Your task to perform on an android device: Open the phone app and click the voicemail tab. Image 0: 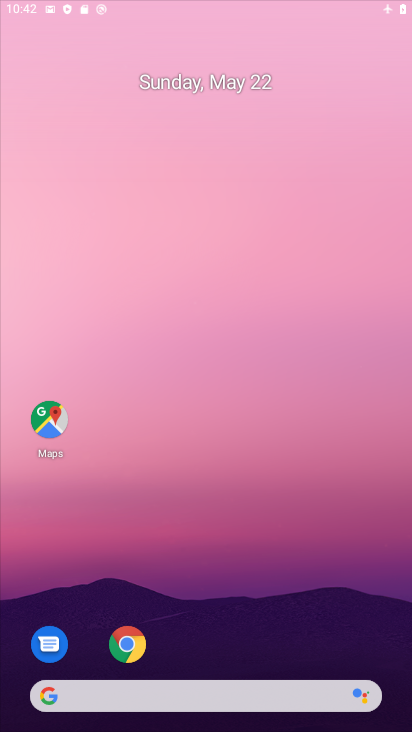
Step 0: press home button
Your task to perform on an android device: Open the phone app and click the voicemail tab. Image 1: 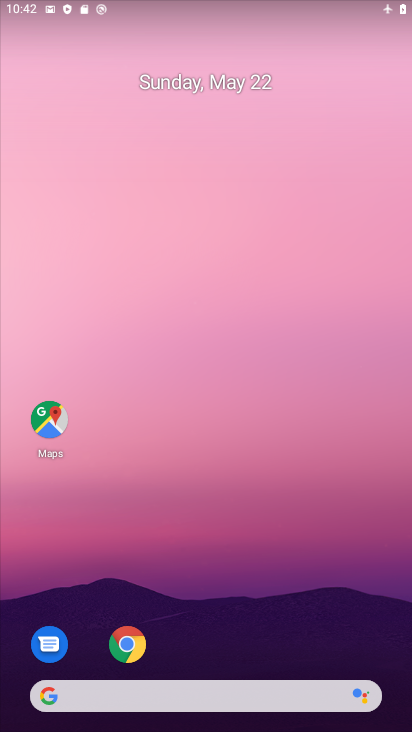
Step 1: drag from (221, 650) to (230, 0)
Your task to perform on an android device: Open the phone app and click the voicemail tab. Image 2: 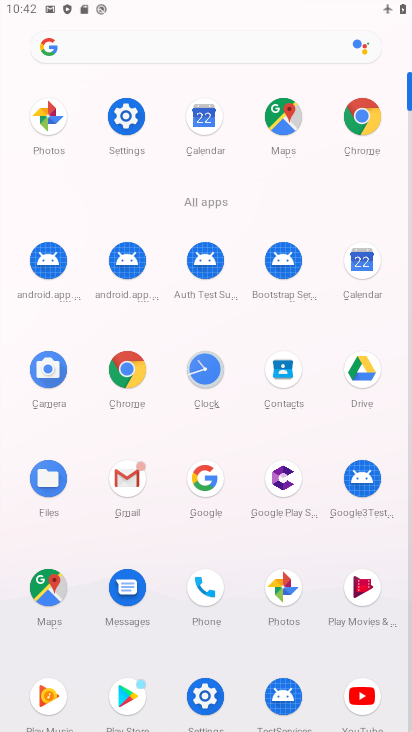
Step 2: click (203, 580)
Your task to perform on an android device: Open the phone app and click the voicemail tab. Image 3: 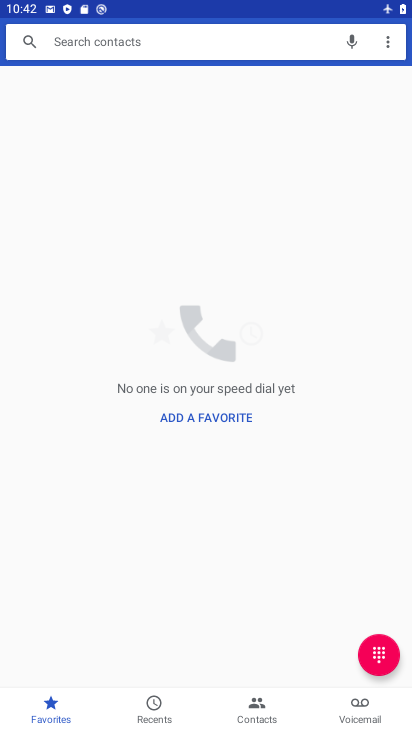
Step 3: click (358, 699)
Your task to perform on an android device: Open the phone app and click the voicemail tab. Image 4: 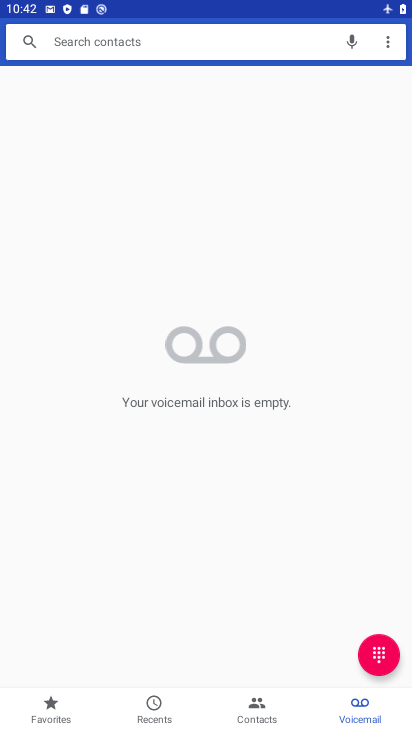
Step 4: task complete